Your task to perform on an android device: open the mobile data screen to see how much data has been used Image 0: 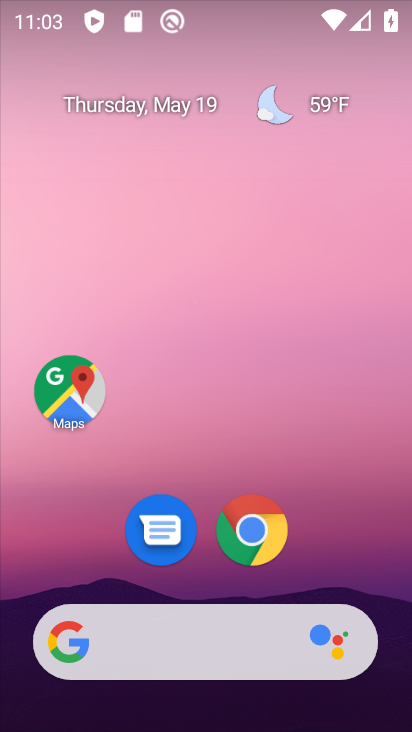
Step 0: drag from (373, 566) to (360, 235)
Your task to perform on an android device: open the mobile data screen to see how much data has been used Image 1: 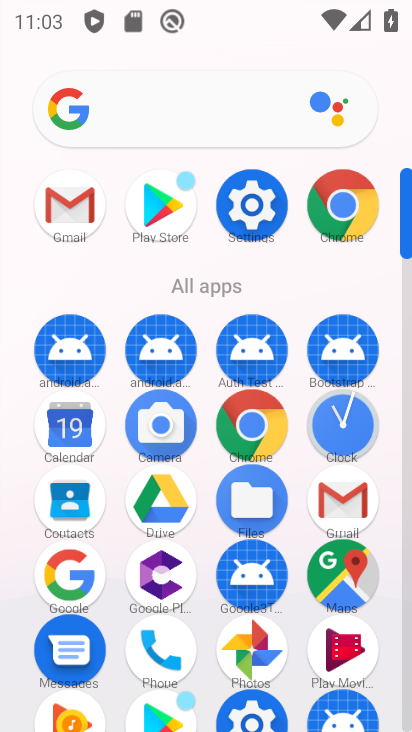
Step 1: click (269, 218)
Your task to perform on an android device: open the mobile data screen to see how much data has been used Image 2: 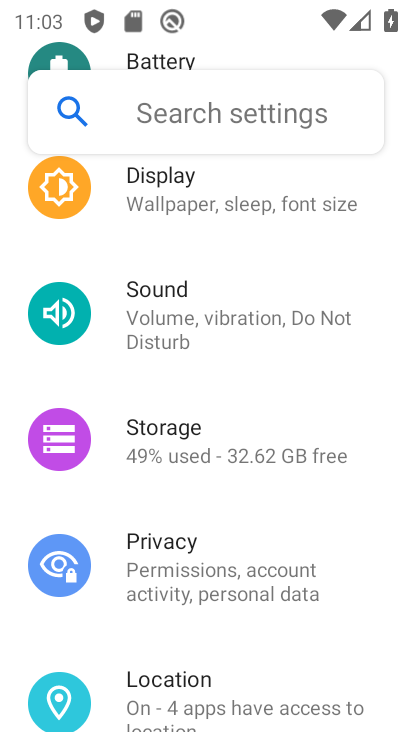
Step 2: drag from (260, 226) to (271, 606)
Your task to perform on an android device: open the mobile data screen to see how much data has been used Image 3: 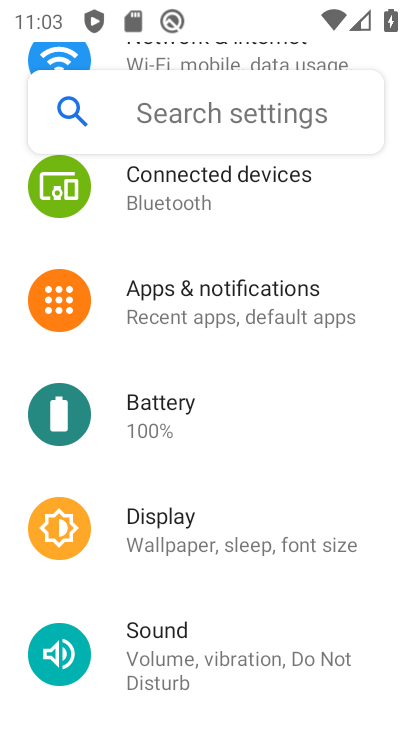
Step 3: drag from (304, 249) to (284, 642)
Your task to perform on an android device: open the mobile data screen to see how much data has been used Image 4: 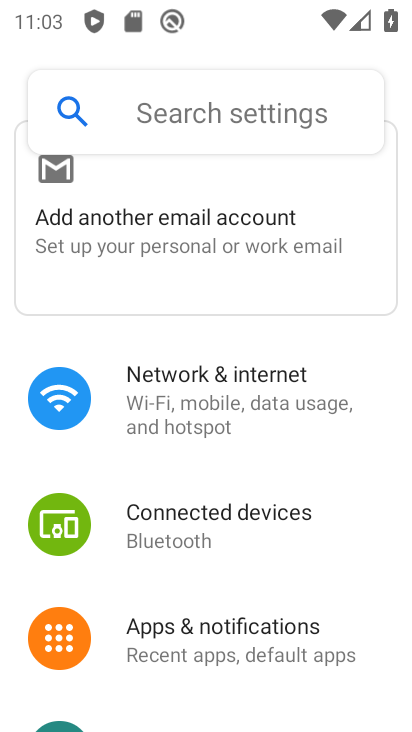
Step 4: click (118, 387)
Your task to perform on an android device: open the mobile data screen to see how much data has been used Image 5: 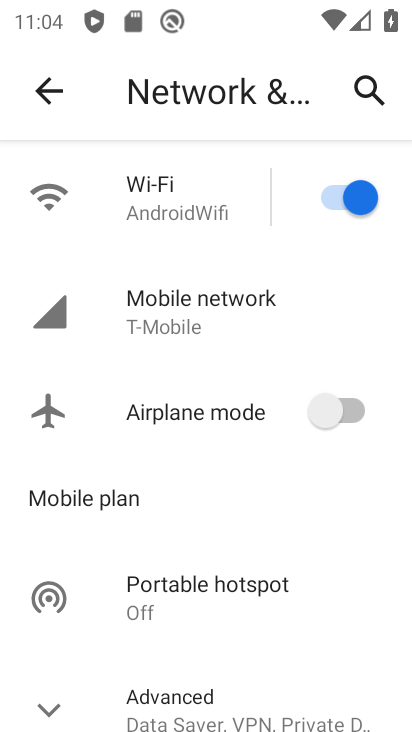
Step 5: click (183, 299)
Your task to perform on an android device: open the mobile data screen to see how much data has been used Image 6: 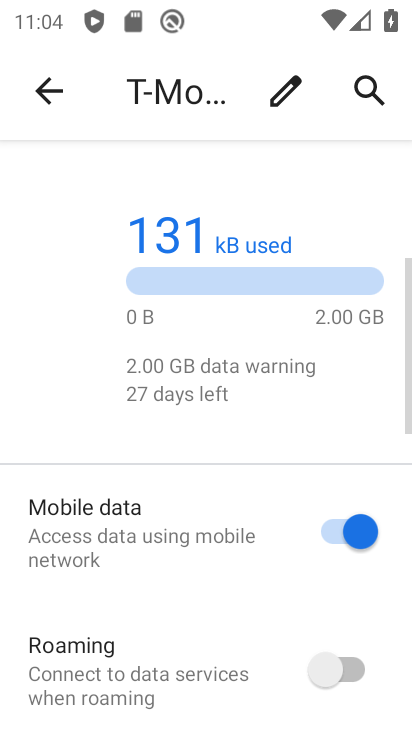
Step 6: task complete